Your task to perform on an android device: turn pop-ups off in chrome Image 0: 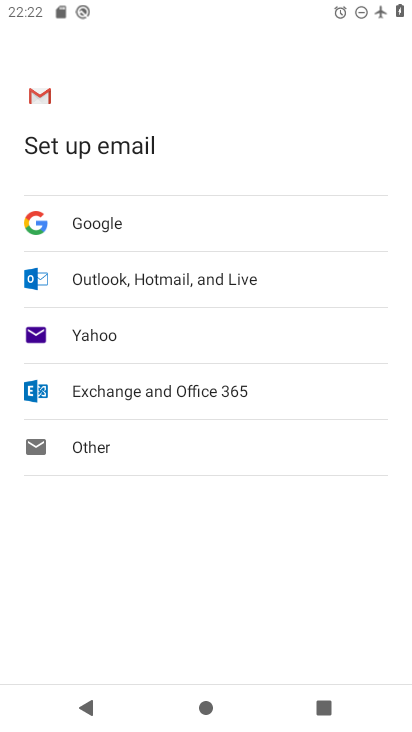
Step 0: drag from (174, 649) to (249, 428)
Your task to perform on an android device: turn pop-ups off in chrome Image 1: 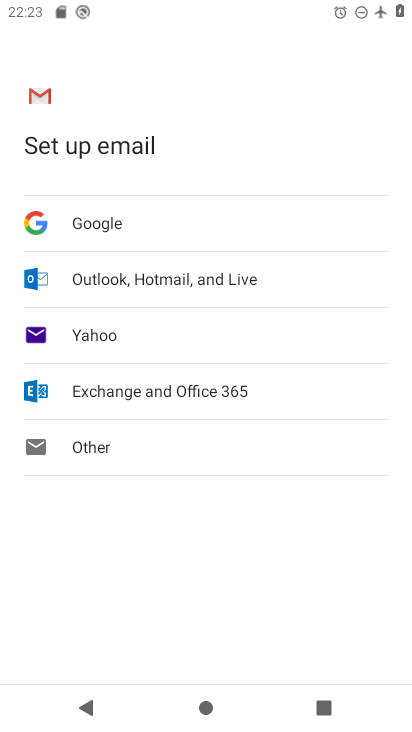
Step 1: press home button
Your task to perform on an android device: turn pop-ups off in chrome Image 2: 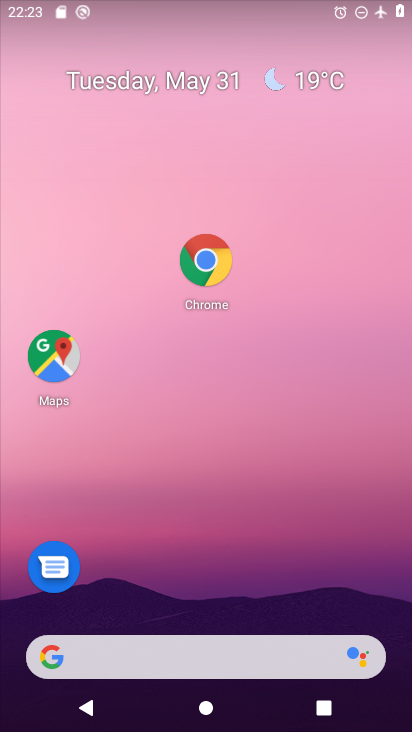
Step 2: drag from (256, 634) to (403, 408)
Your task to perform on an android device: turn pop-ups off in chrome Image 3: 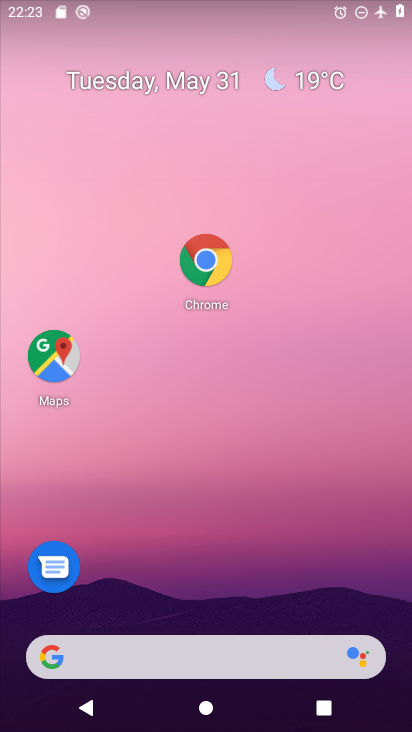
Step 3: drag from (147, 634) to (332, 225)
Your task to perform on an android device: turn pop-ups off in chrome Image 4: 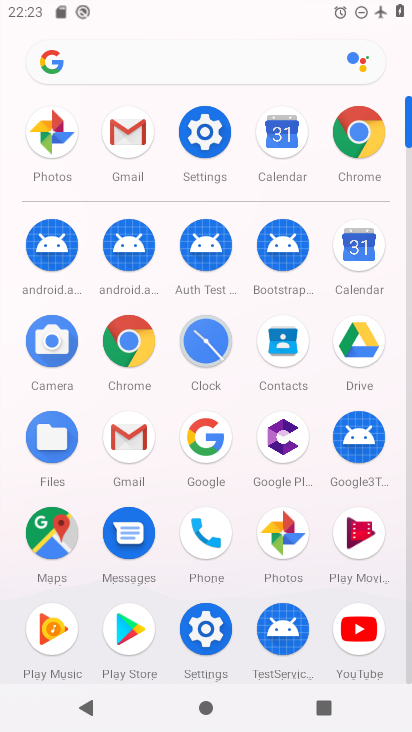
Step 4: click (368, 119)
Your task to perform on an android device: turn pop-ups off in chrome Image 5: 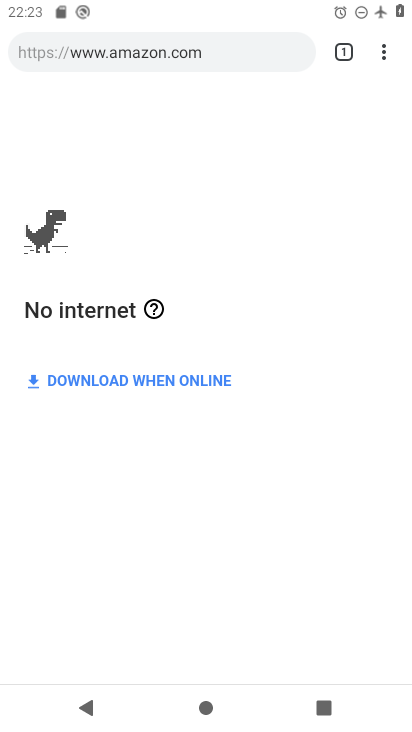
Step 5: click (396, 48)
Your task to perform on an android device: turn pop-ups off in chrome Image 6: 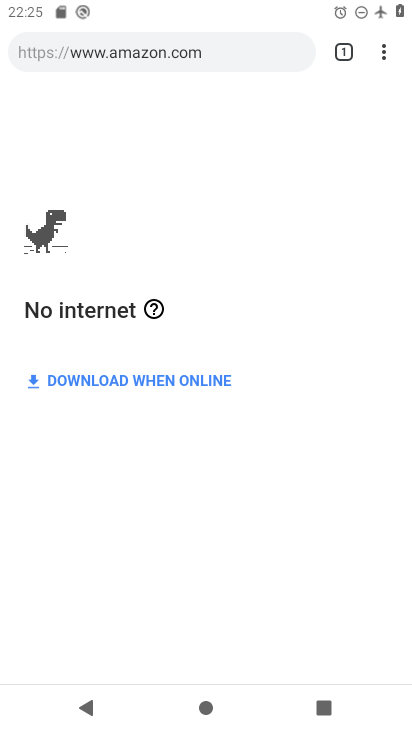
Step 6: click (381, 62)
Your task to perform on an android device: turn pop-ups off in chrome Image 7: 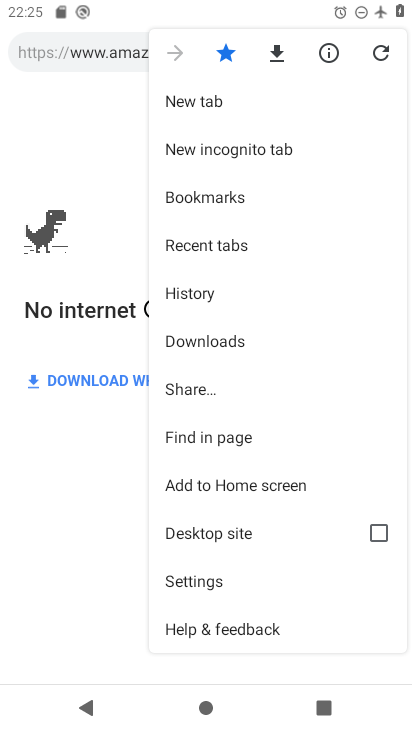
Step 7: click (209, 576)
Your task to perform on an android device: turn pop-ups off in chrome Image 8: 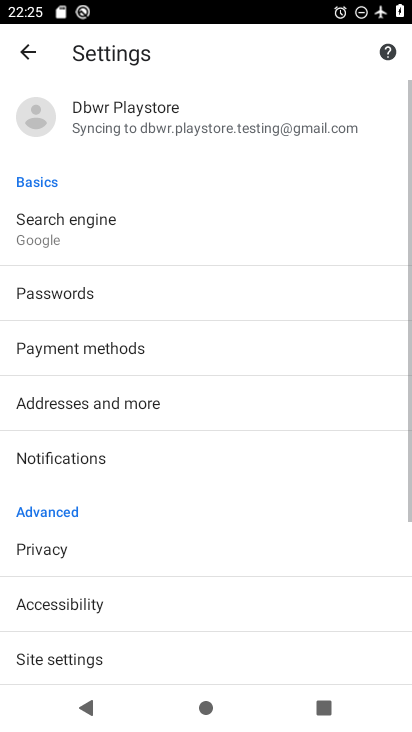
Step 8: click (29, 658)
Your task to perform on an android device: turn pop-ups off in chrome Image 9: 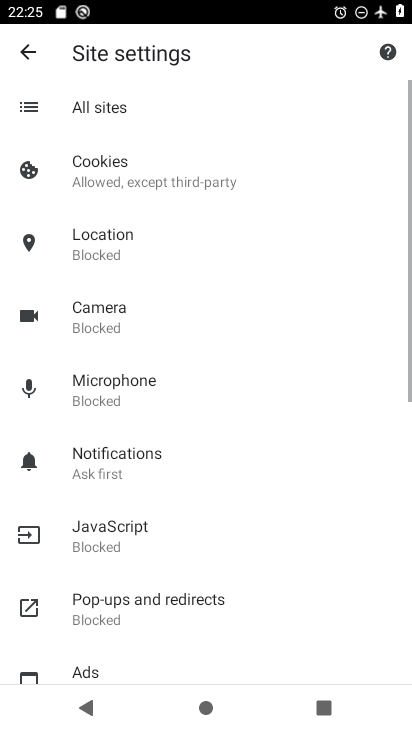
Step 9: click (189, 593)
Your task to perform on an android device: turn pop-ups off in chrome Image 10: 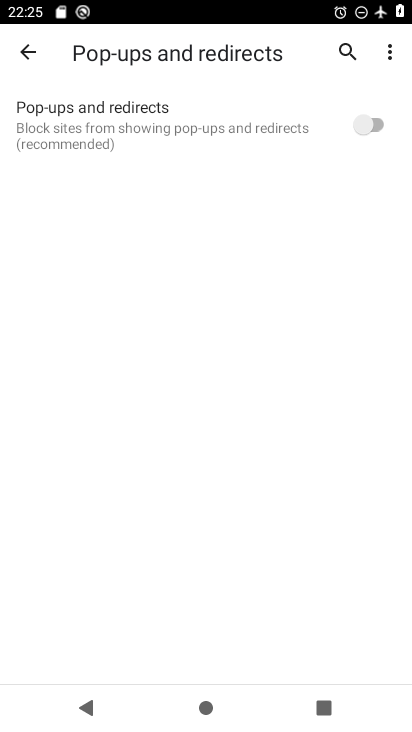
Step 10: task complete